Your task to perform on an android device: open chrome privacy settings Image 0: 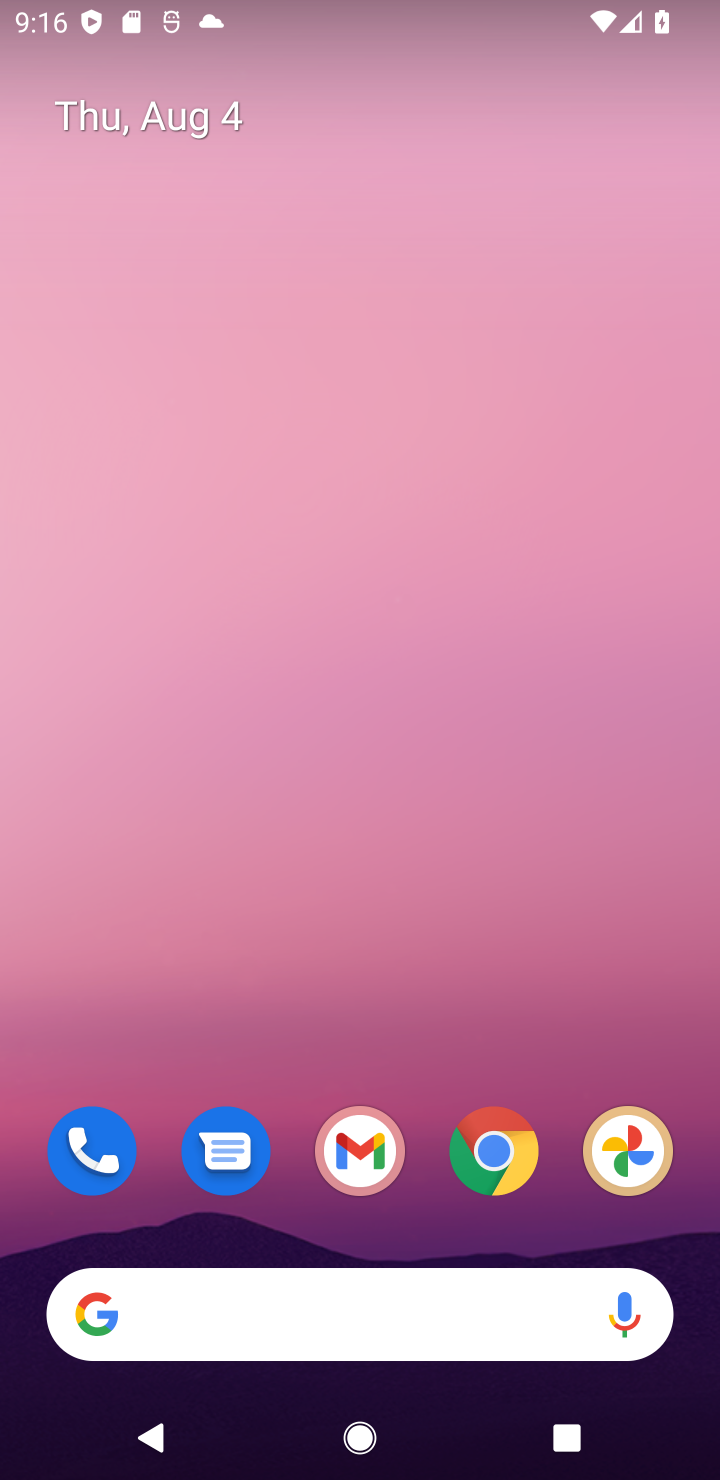
Step 0: click (518, 1147)
Your task to perform on an android device: open chrome privacy settings Image 1: 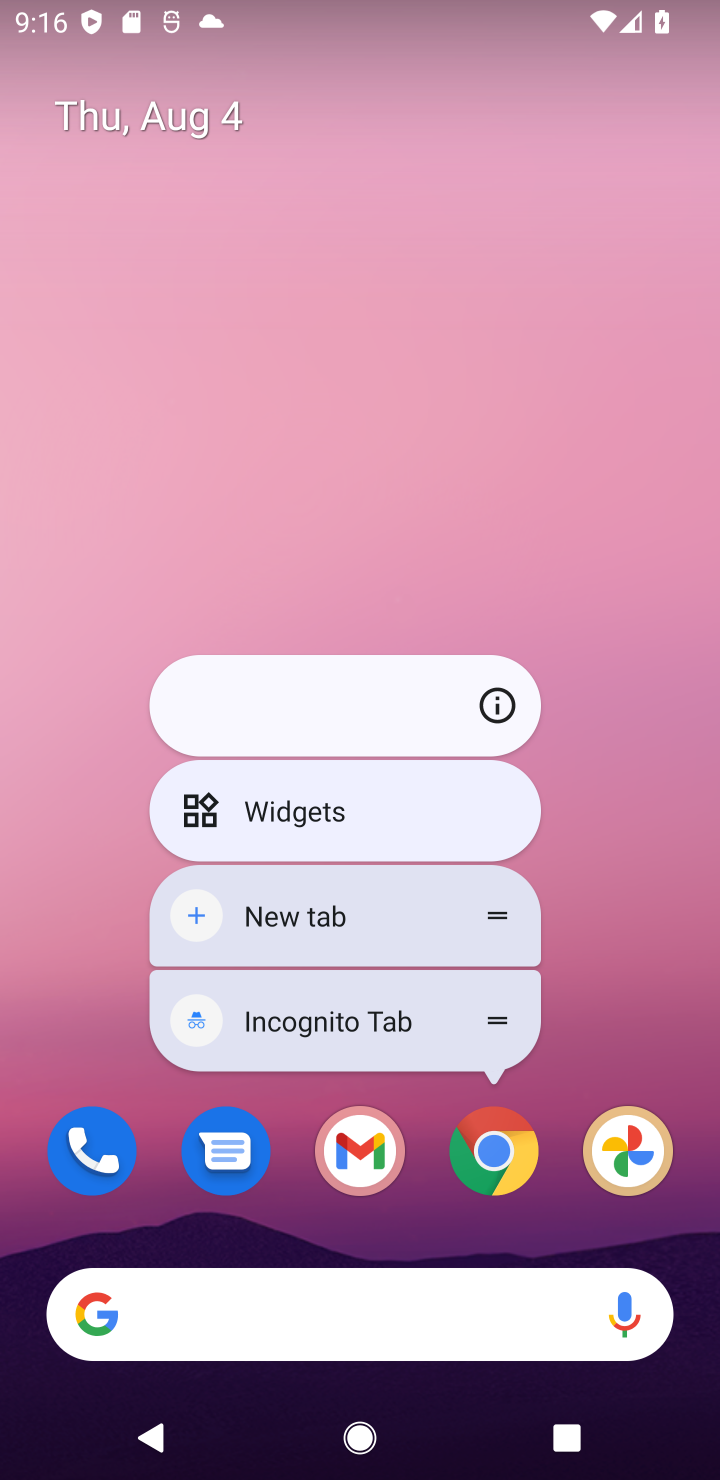
Step 1: click (502, 1187)
Your task to perform on an android device: open chrome privacy settings Image 2: 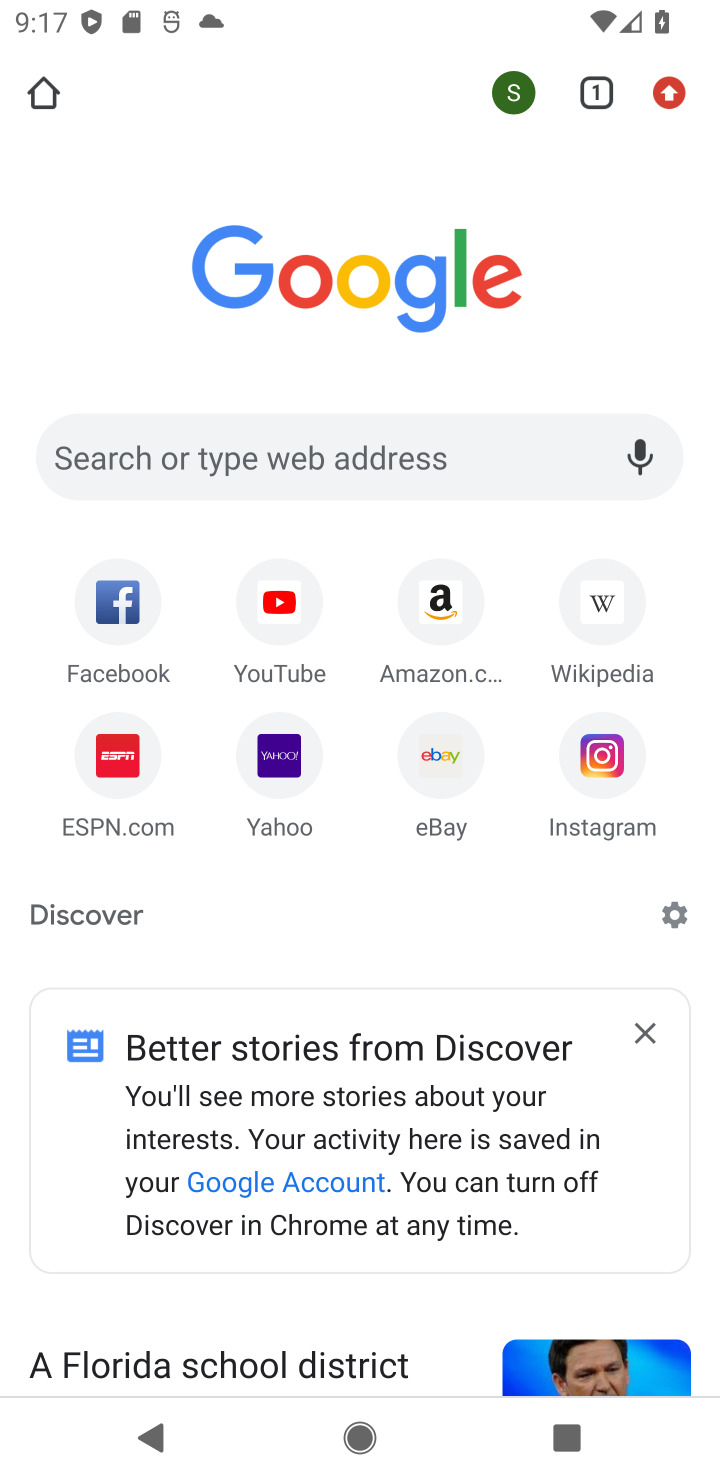
Step 2: click (658, 117)
Your task to perform on an android device: open chrome privacy settings Image 3: 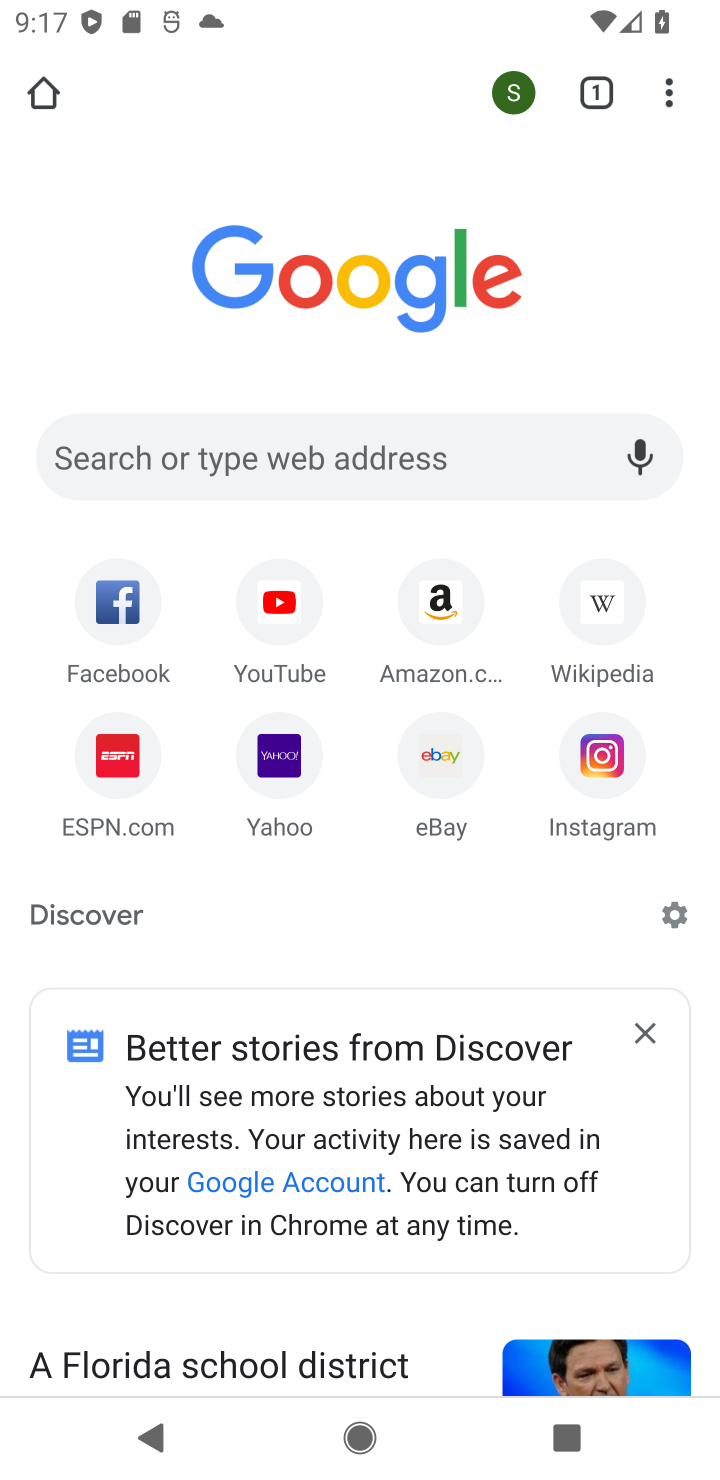
Step 3: click (678, 108)
Your task to perform on an android device: open chrome privacy settings Image 4: 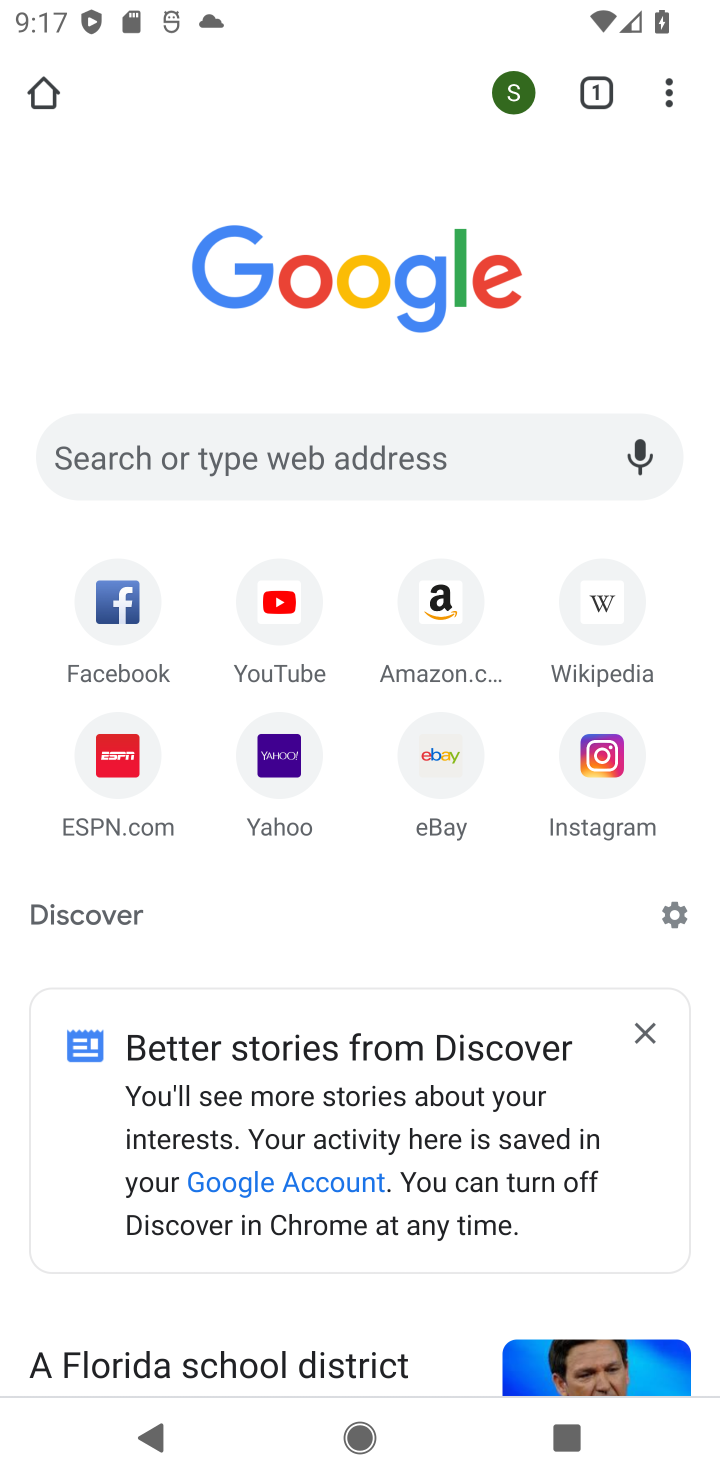
Step 4: click (262, 777)
Your task to perform on an android device: open chrome privacy settings Image 5: 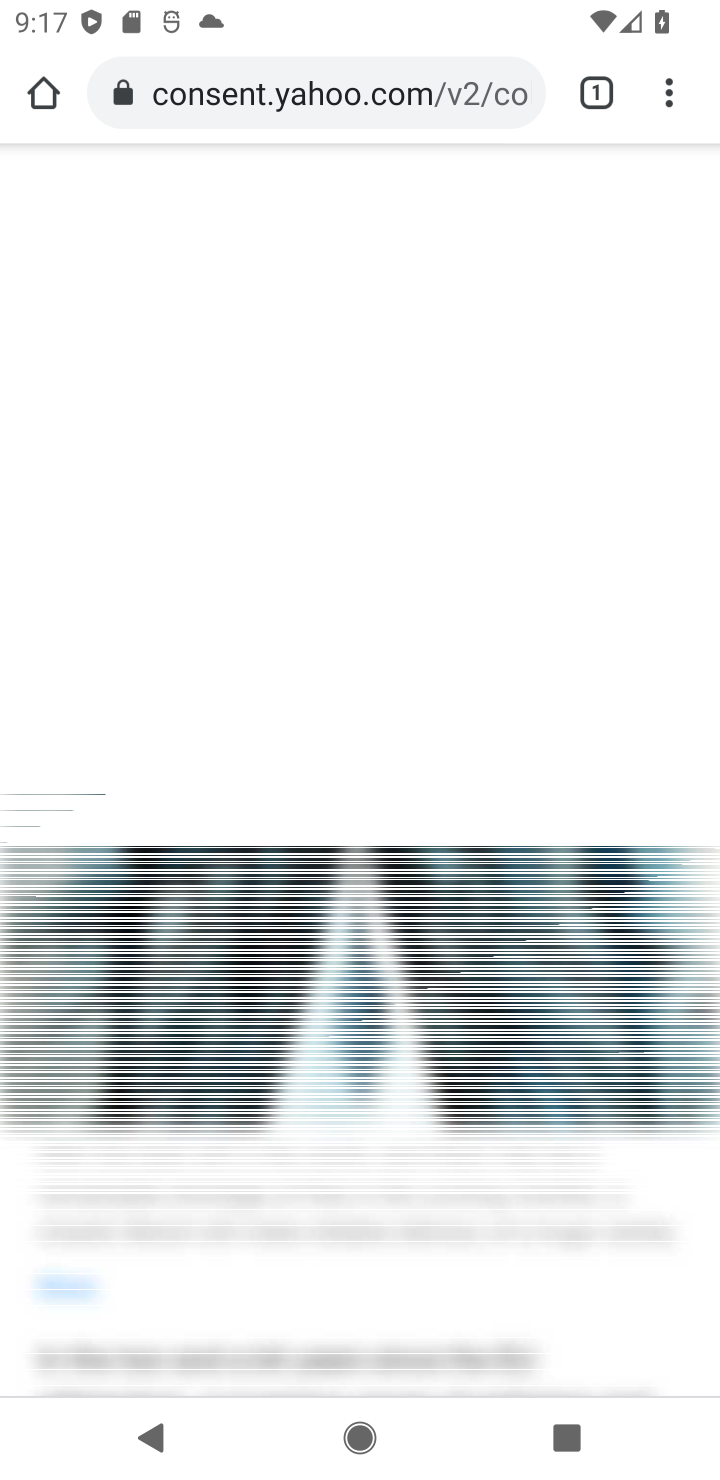
Step 5: press back button
Your task to perform on an android device: open chrome privacy settings Image 6: 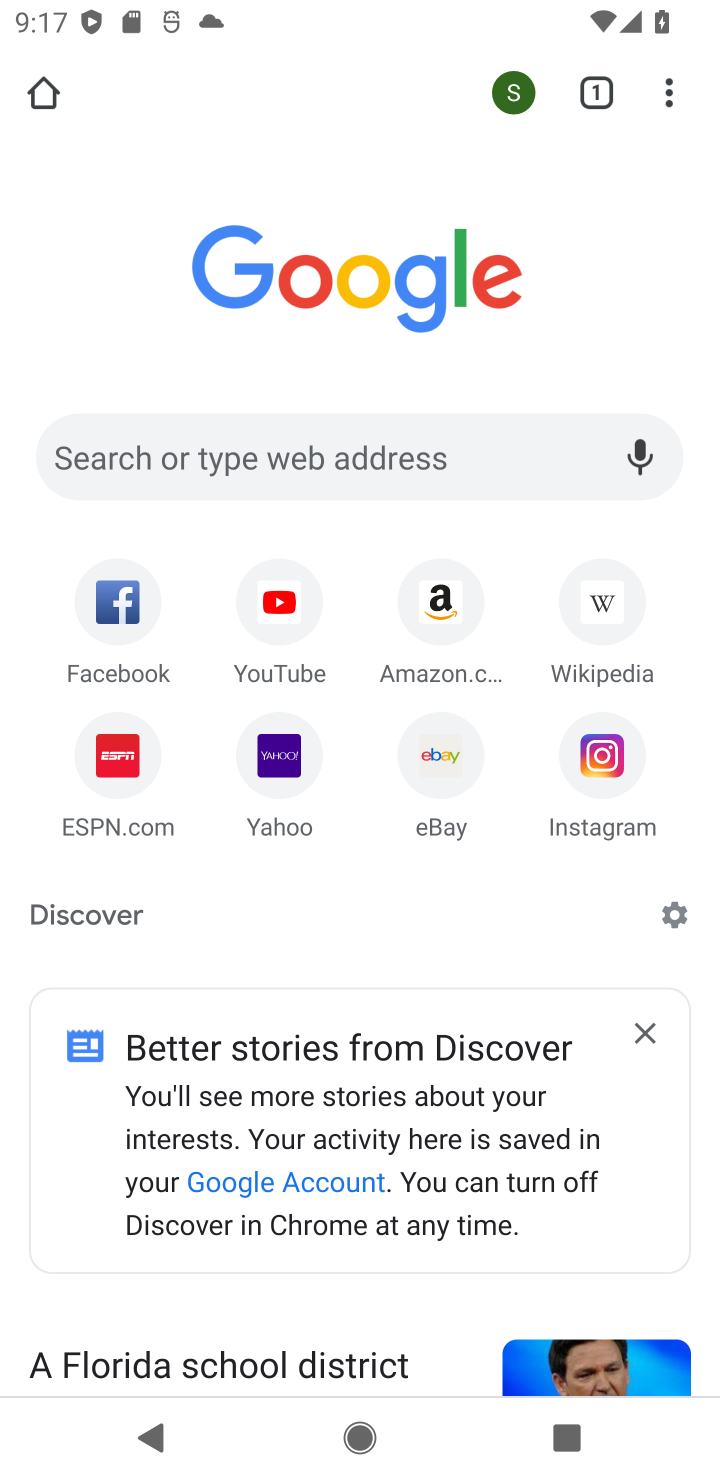
Step 6: click (671, 86)
Your task to perform on an android device: open chrome privacy settings Image 7: 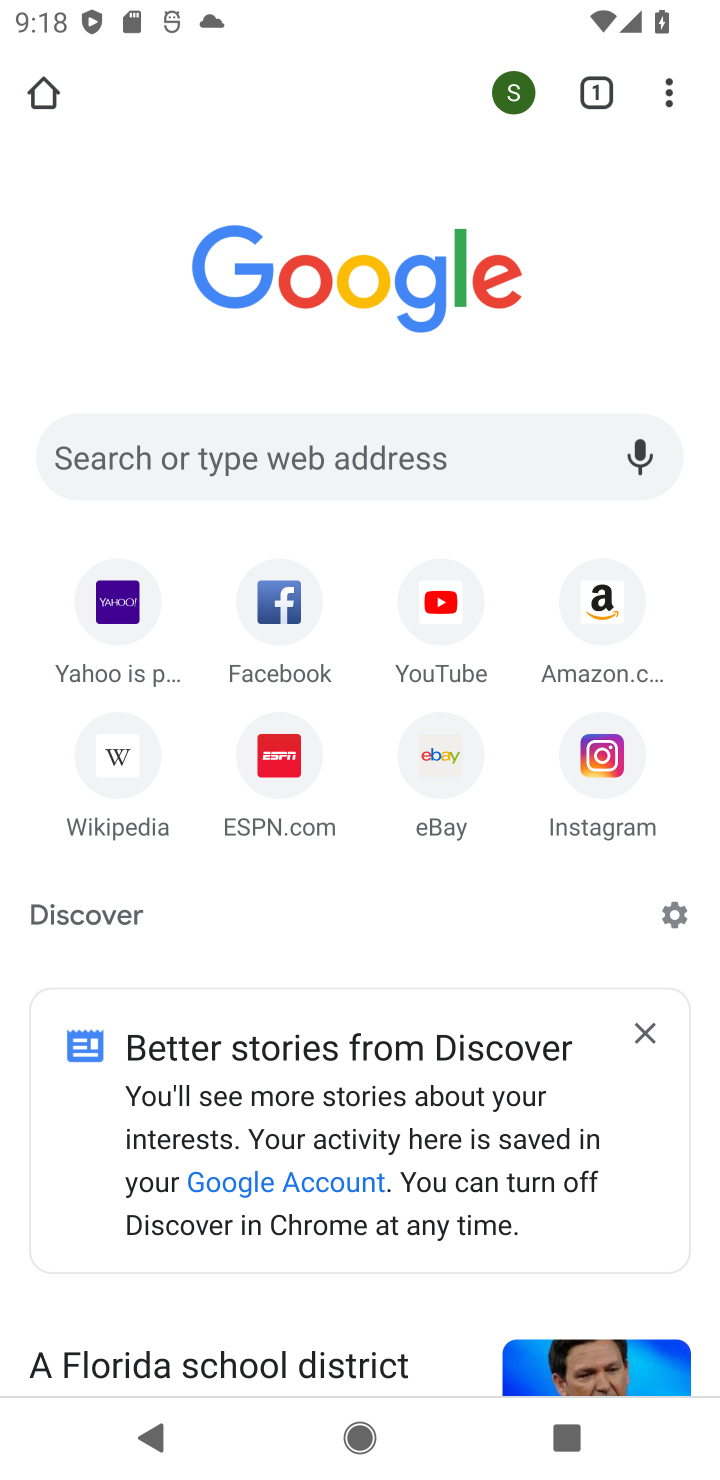
Step 7: drag from (300, 928) to (394, 493)
Your task to perform on an android device: open chrome privacy settings Image 8: 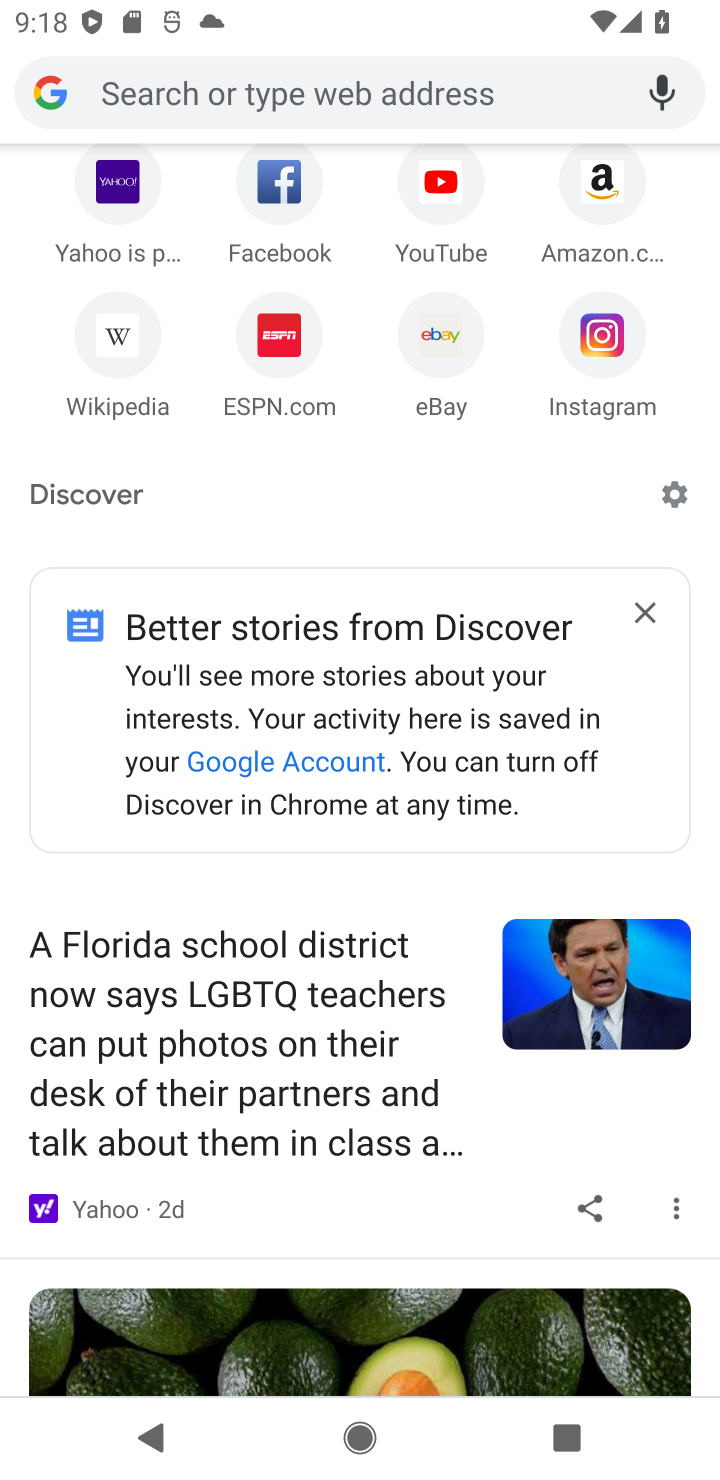
Step 8: drag from (412, 572) to (407, 879)
Your task to perform on an android device: open chrome privacy settings Image 9: 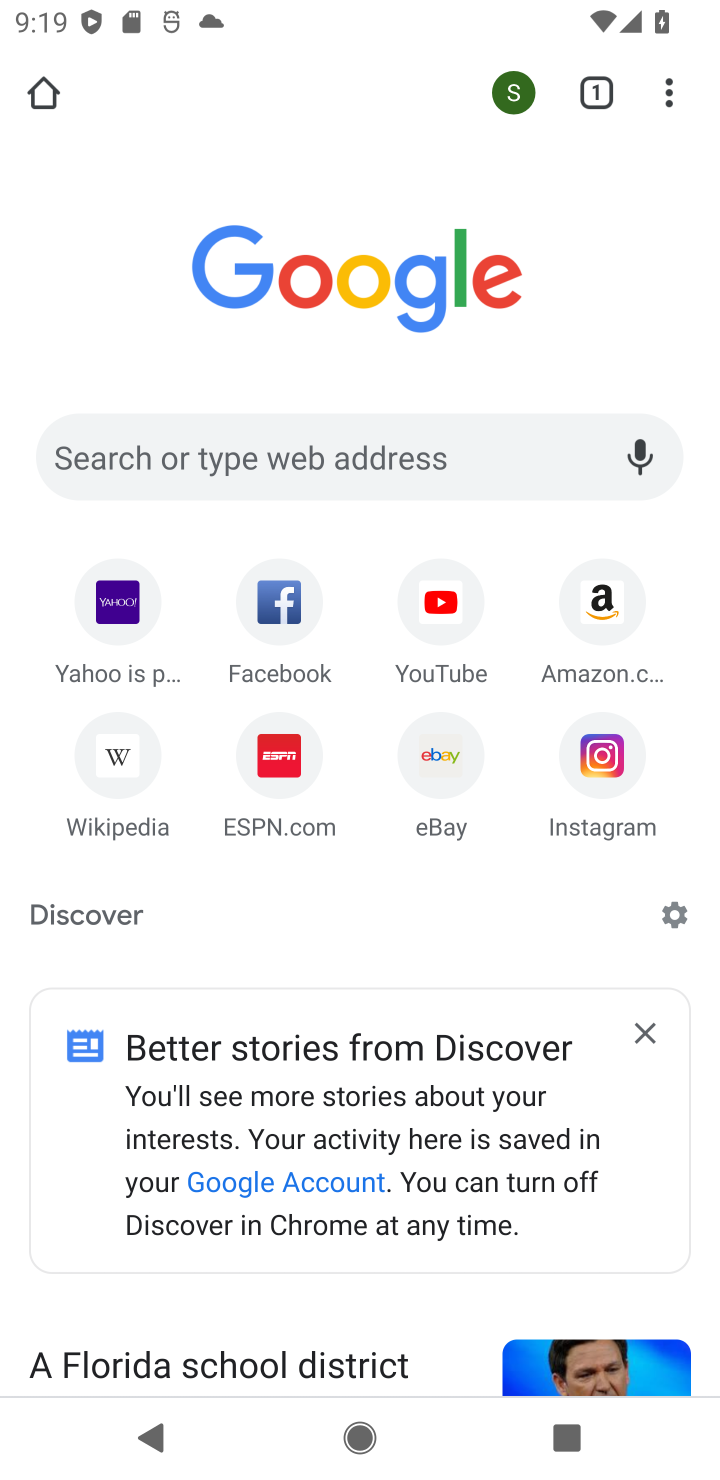
Step 9: click (680, 112)
Your task to perform on an android device: open chrome privacy settings Image 10: 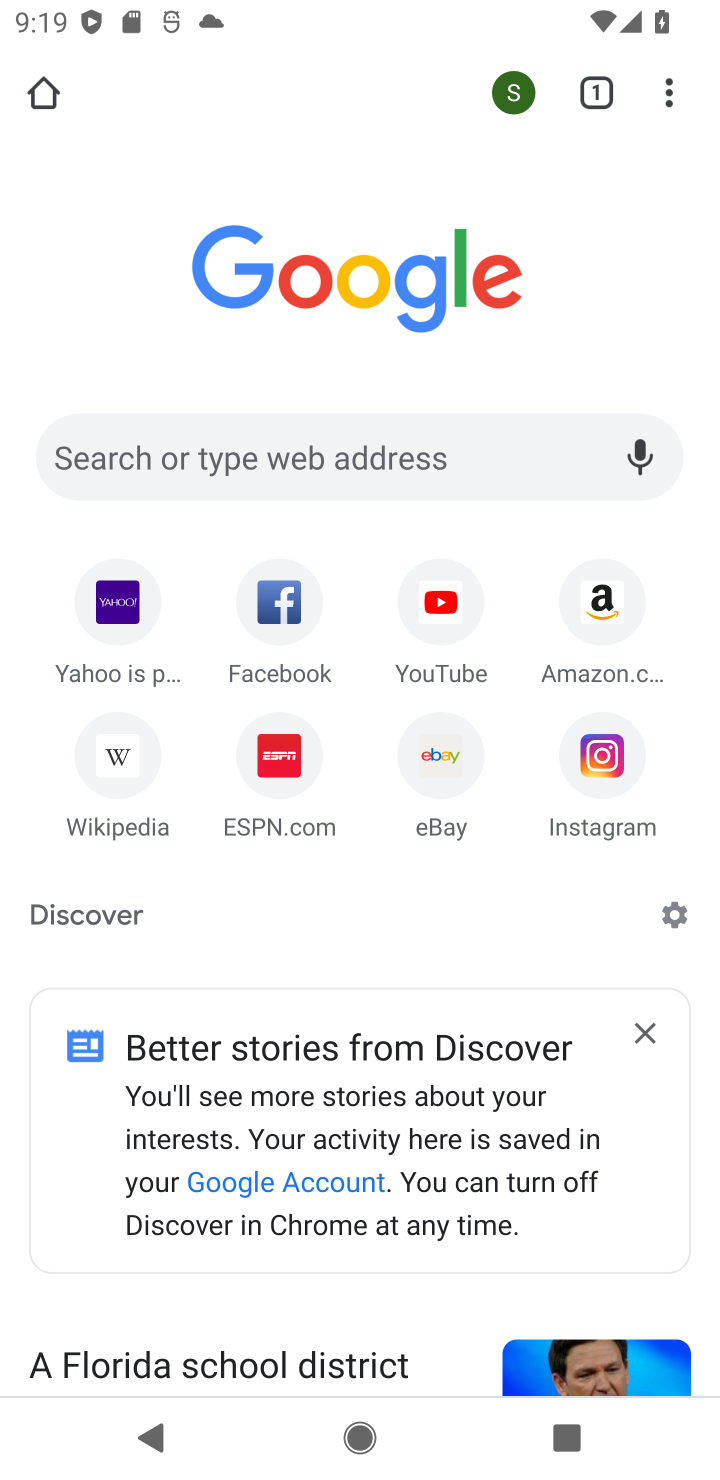
Step 10: click (680, 114)
Your task to perform on an android device: open chrome privacy settings Image 11: 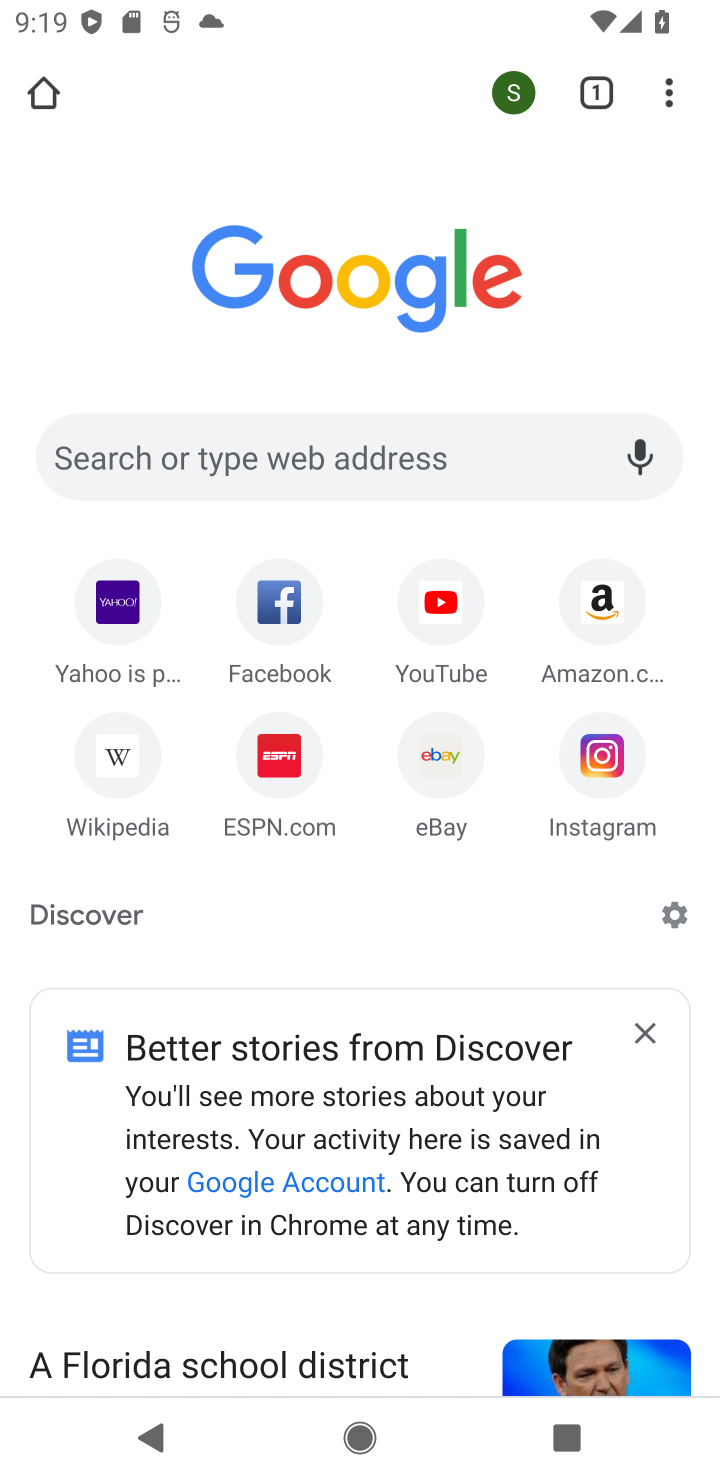
Step 11: click (680, 114)
Your task to perform on an android device: open chrome privacy settings Image 12: 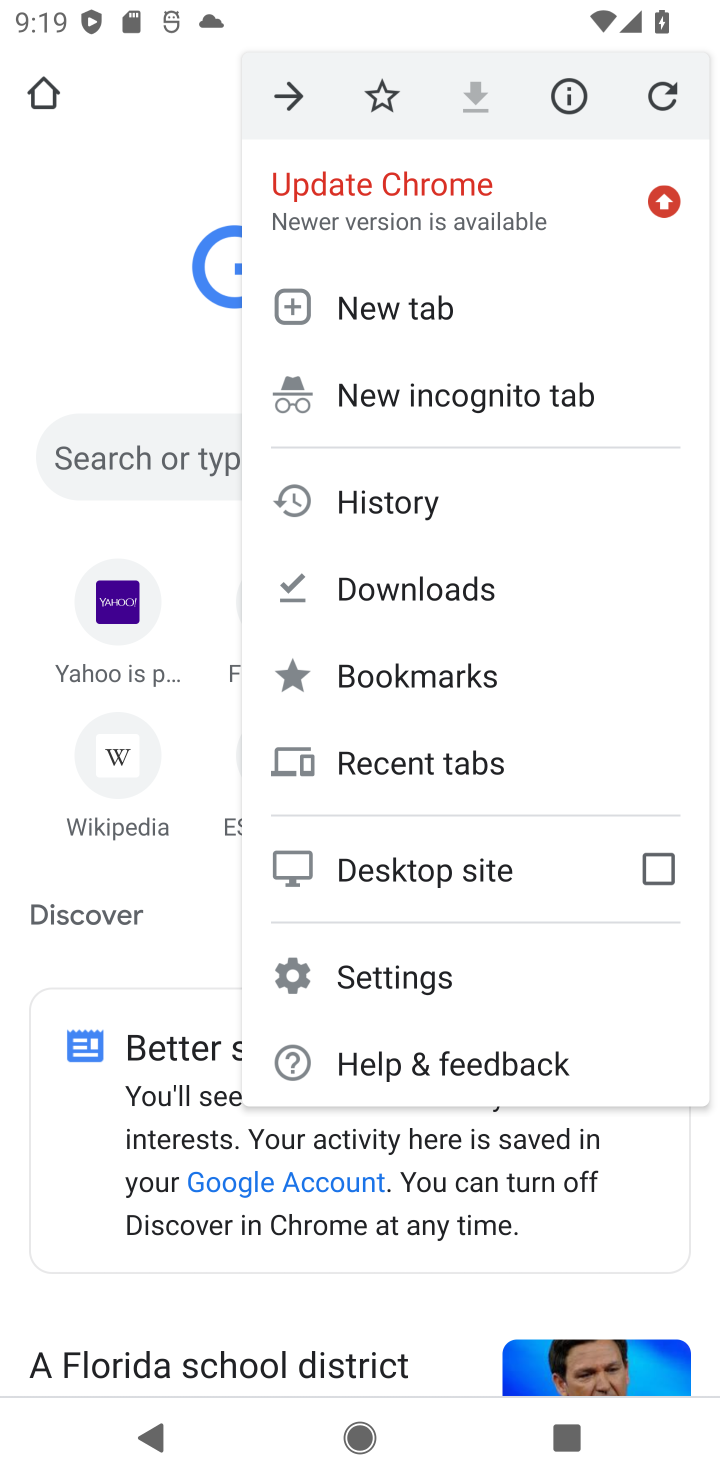
Step 12: click (474, 961)
Your task to perform on an android device: open chrome privacy settings Image 13: 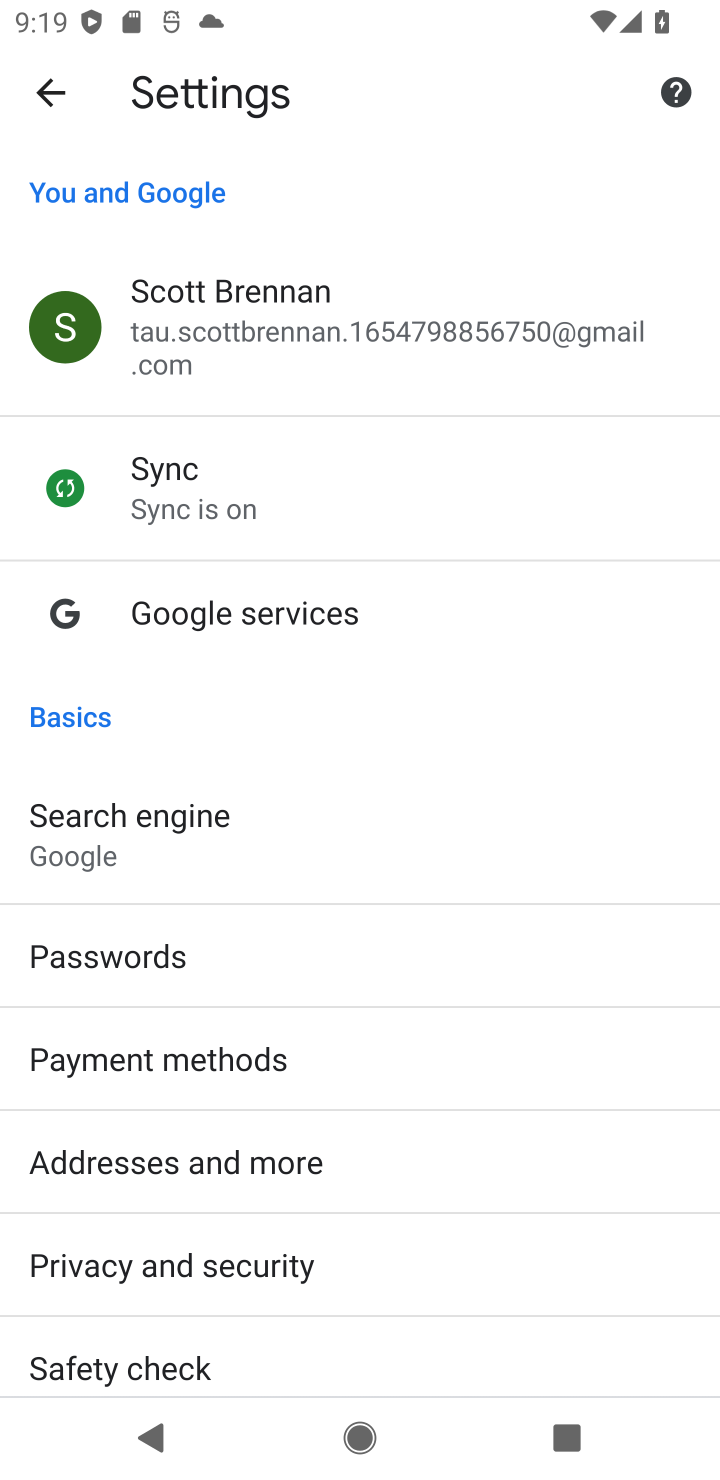
Step 13: click (268, 1254)
Your task to perform on an android device: open chrome privacy settings Image 14: 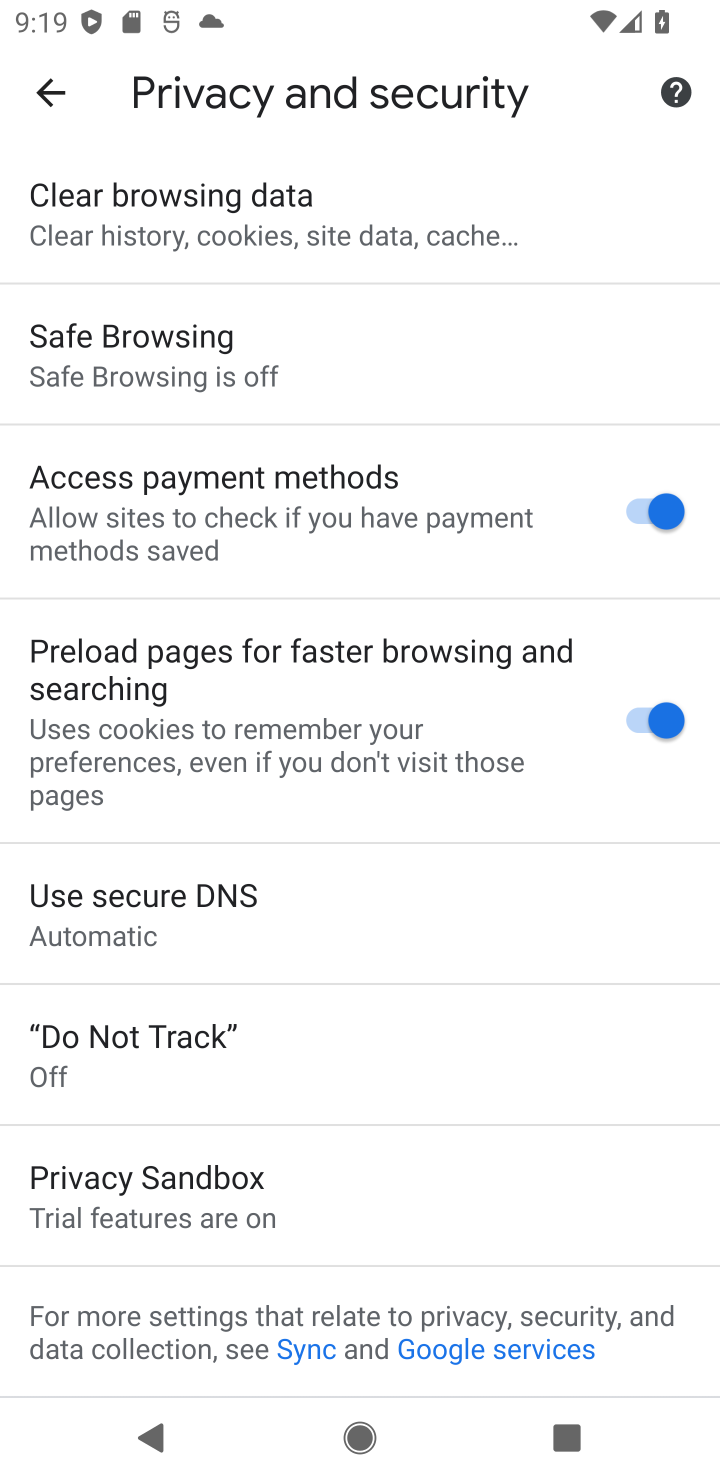
Step 14: task complete